Your task to perform on an android device: set default search engine in the chrome app Image 0: 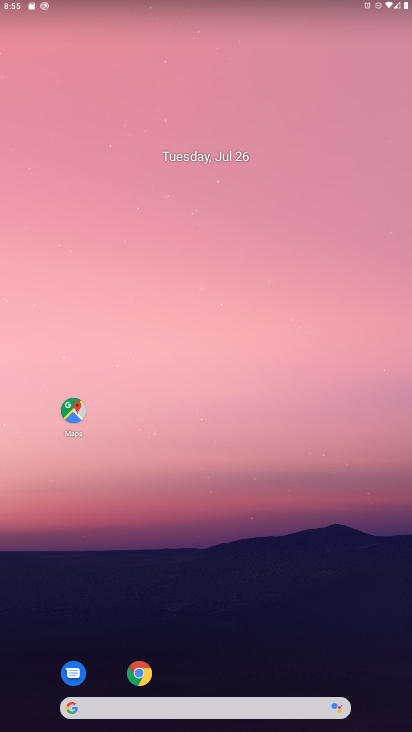
Step 0: drag from (357, 674) to (200, 22)
Your task to perform on an android device: set default search engine in the chrome app Image 1: 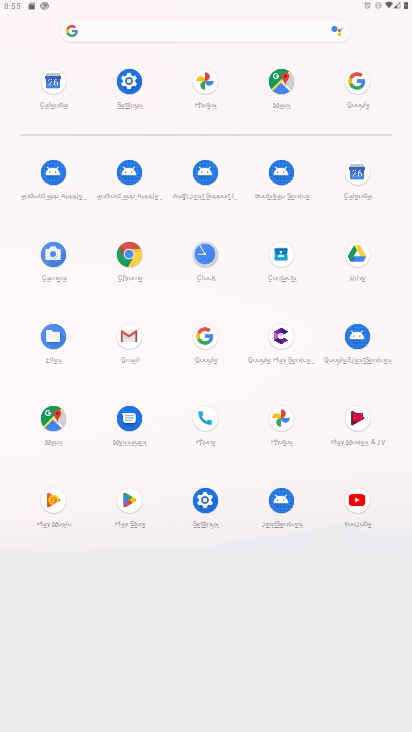
Step 1: click (131, 244)
Your task to perform on an android device: set default search engine in the chrome app Image 2: 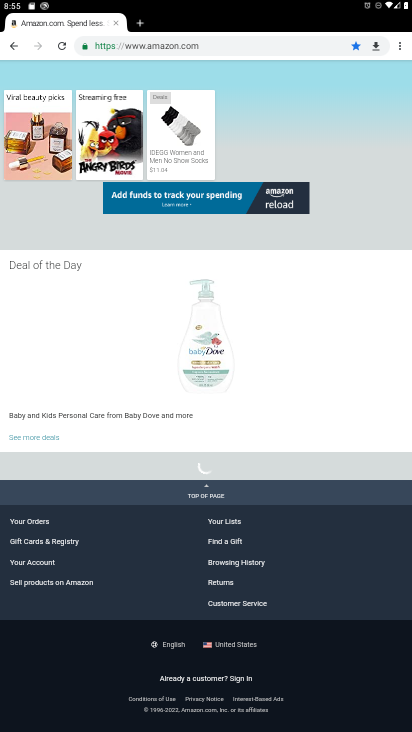
Step 2: click (400, 42)
Your task to perform on an android device: set default search engine in the chrome app Image 3: 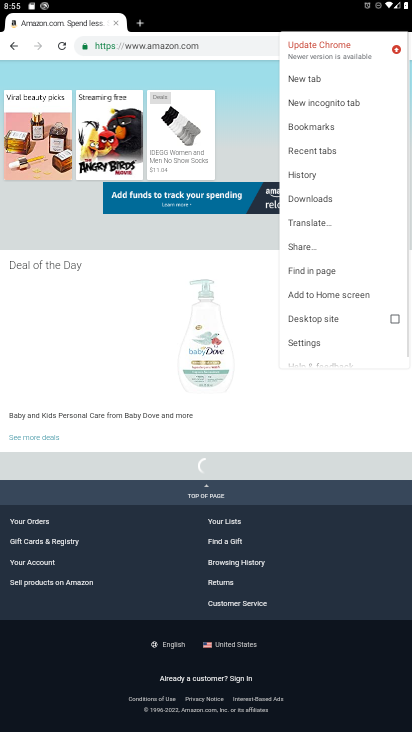
Step 3: click (311, 344)
Your task to perform on an android device: set default search engine in the chrome app Image 4: 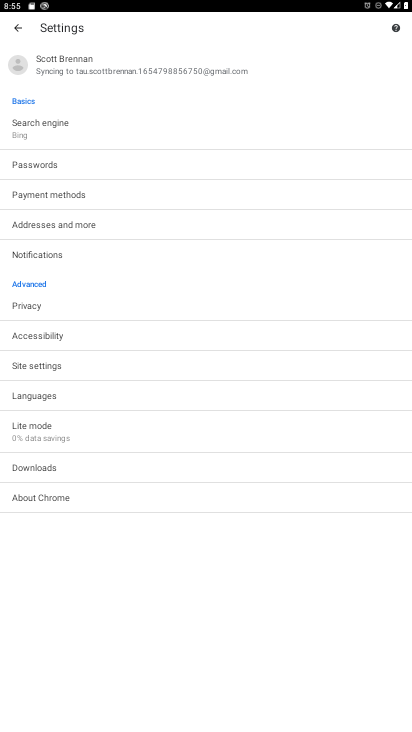
Step 4: click (50, 122)
Your task to perform on an android device: set default search engine in the chrome app Image 5: 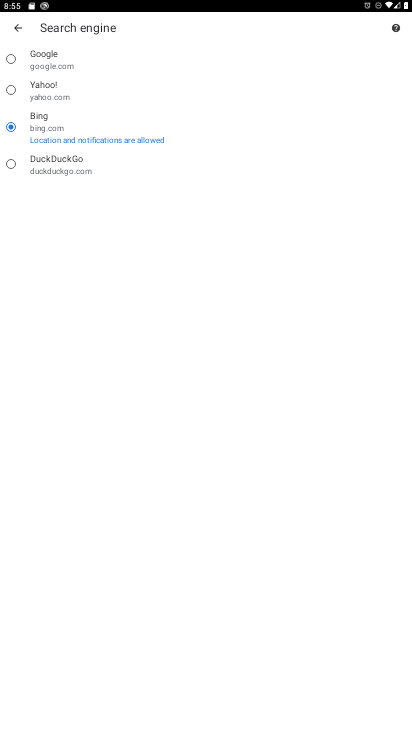
Step 5: click (55, 60)
Your task to perform on an android device: set default search engine in the chrome app Image 6: 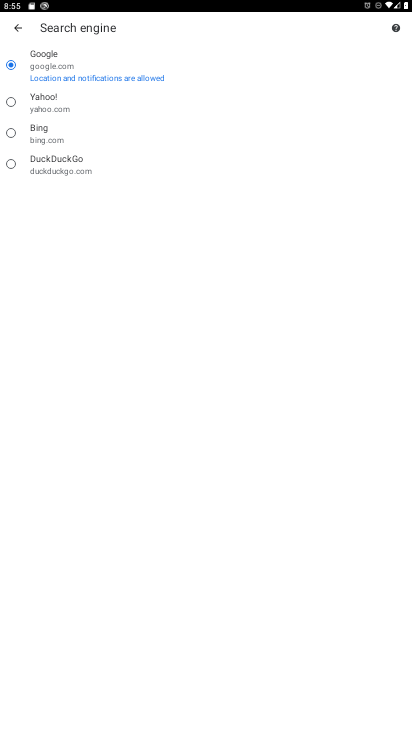
Step 6: task complete